Your task to perform on an android device: turn off smart reply in the gmail app Image 0: 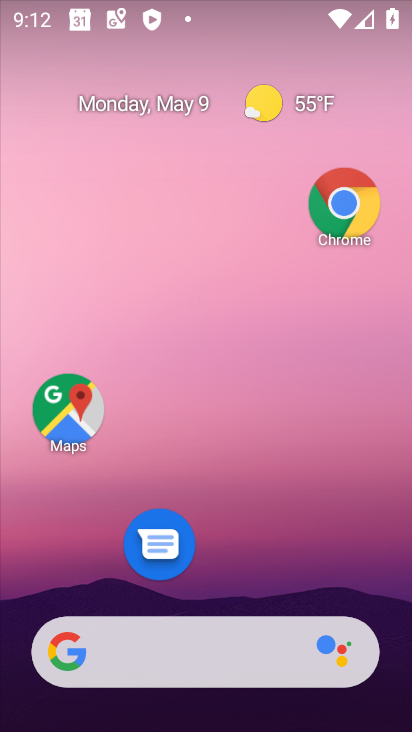
Step 0: drag from (221, 573) to (204, 176)
Your task to perform on an android device: turn off smart reply in the gmail app Image 1: 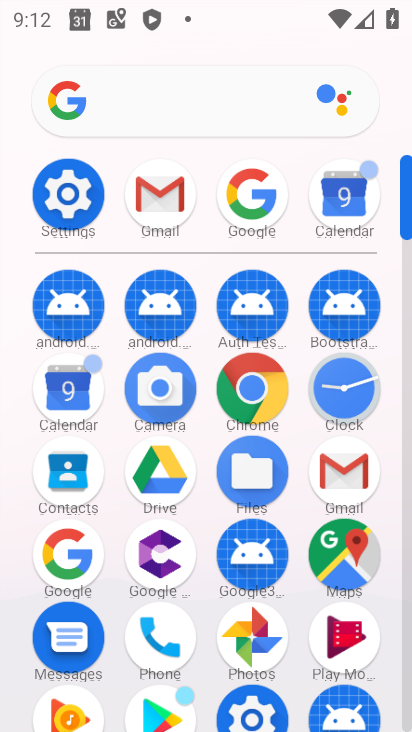
Step 1: click (158, 187)
Your task to perform on an android device: turn off smart reply in the gmail app Image 2: 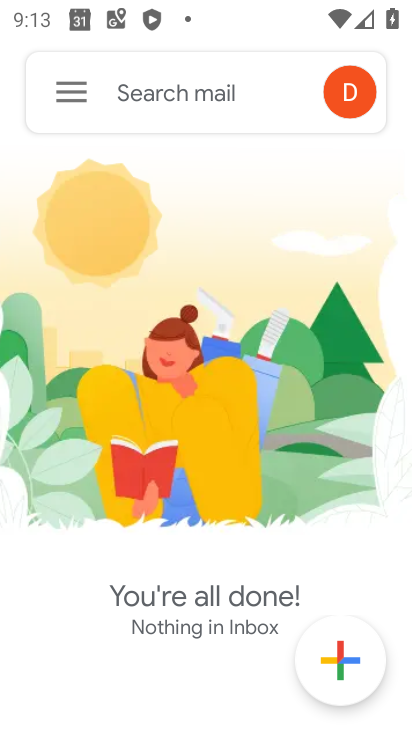
Step 2: click (71, 88)
Your task to perform on an android device: turn off smart reply in the gmail app Image 3: 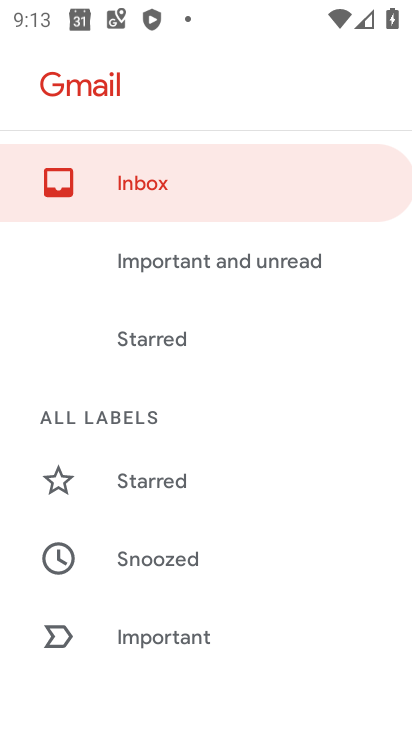
Step 3: drag from (206, 585) to (289, 125)
Your task to perform on an android device: turn off smart reply in the gmail app Image 4: 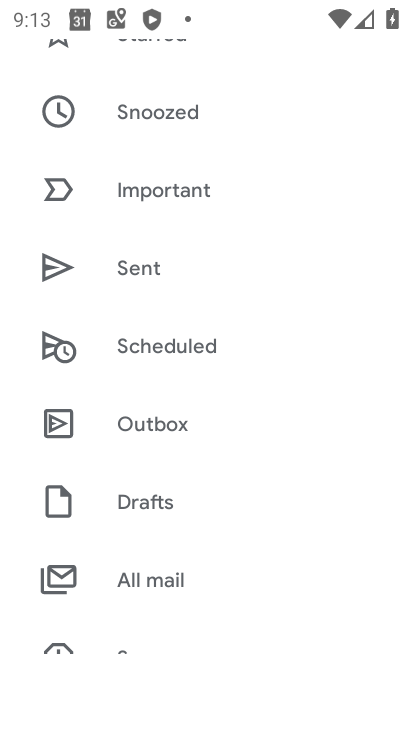
Step 4: drag from (185, 599) to (217, 214)
Your task to perform on an android device: turn off smart reply in the gmail app Image 5: 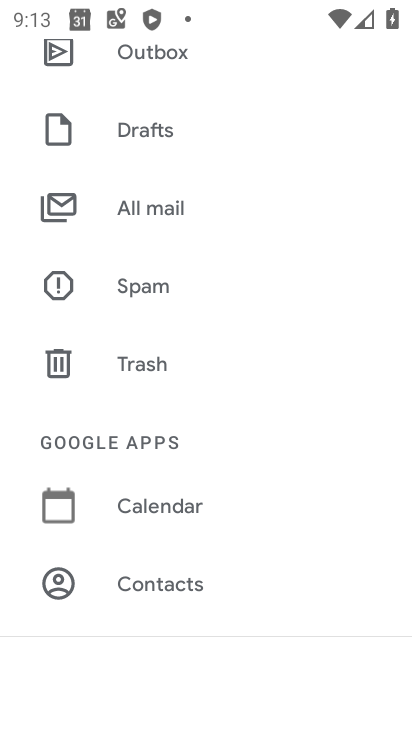
Step 5: drag from (178, 547) to (219, 221)
Your task to perform on an android device: turn off smart reply in the gmail app Image 6: 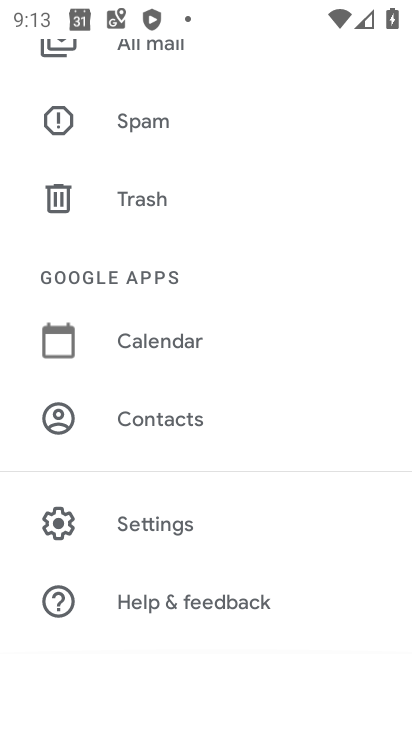
Step 6: click (136, 537)
Your task to perform on an android device: turn off smart reply in the gmail app Image 7: 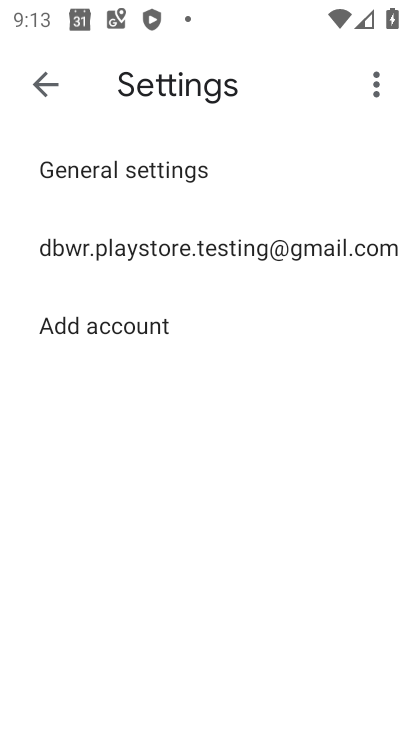
Step 7: click (192, 255)
Your task to perform on an android device: turn off smart reply in the gmail app Image 8: 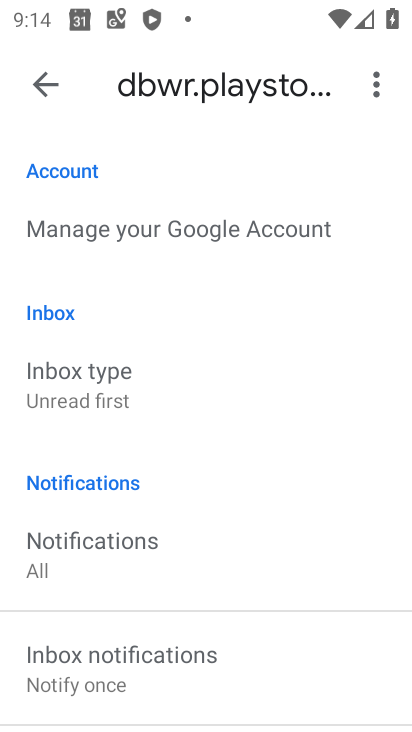
Step 8: drag from (224, 647) to (304, 225)
Your task to perform on an android device: turn off smart reply in the gmail app Image 9: 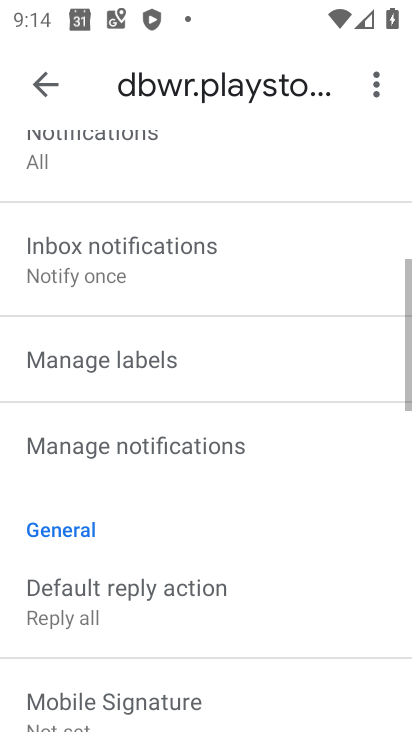
Step 9: drag from (259, 662) to (270, 248)
Your task to perform on an android device: turn off smart reply in the gmail app Image 10: 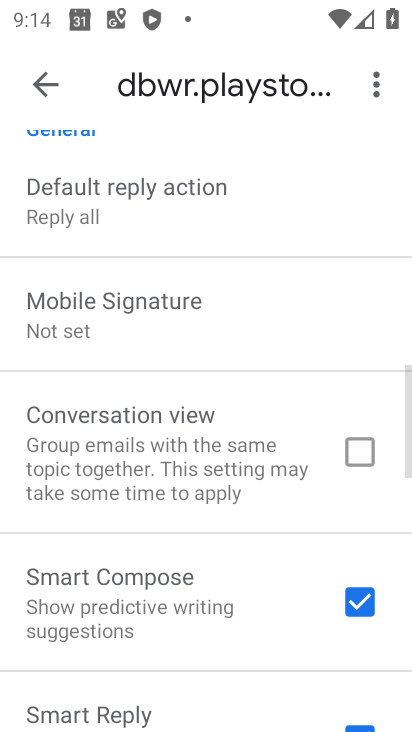
Step 10: drag from (229, 610) to (253, 391)
Your task to perform on an android device: turn off smart reply in the gmail app Image 11: 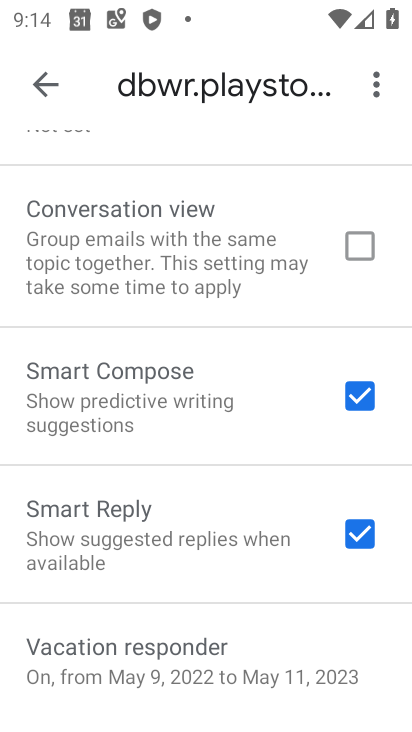
Step 11: click (352, 528)
Your task to perform on an android device: turn off smart reply in the gmail app Image 12: 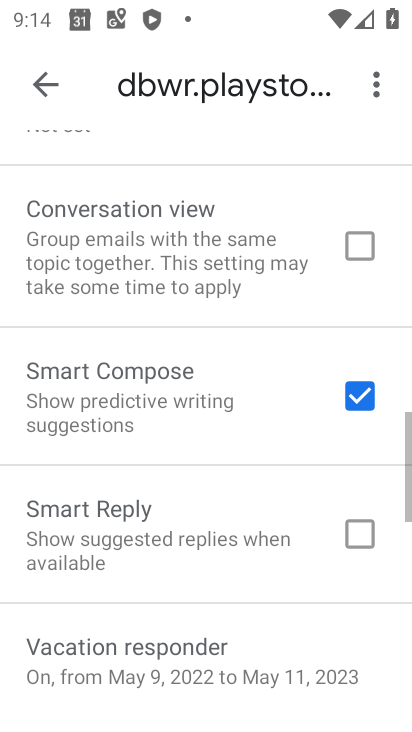
Step 12: task complete